Your task to perform on an android device: Add "bose soundlink" to the cart on newegg Image 0: 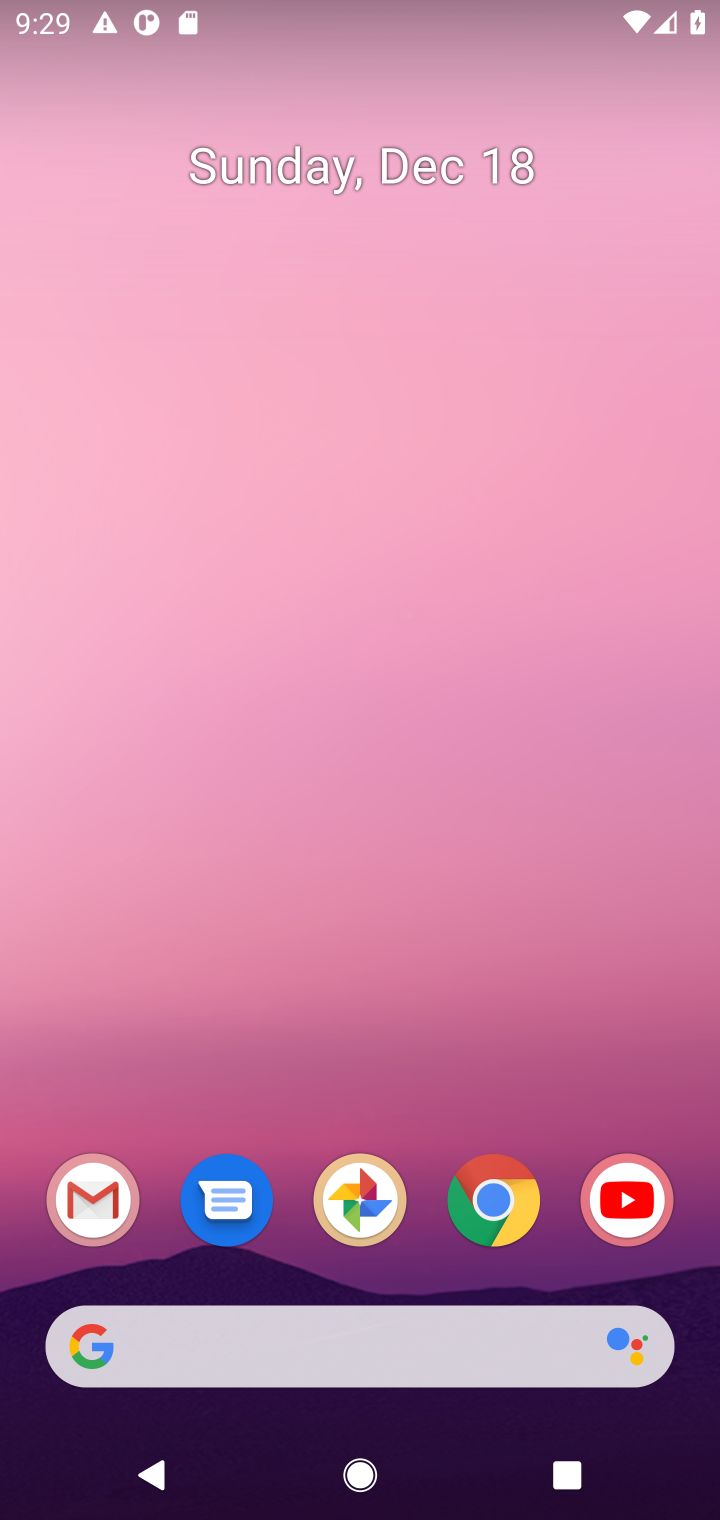
Step 0: click (493, 1216)
Your task to perform on an android device: Add "bose soundlink" to the cart on newegg Image 1: 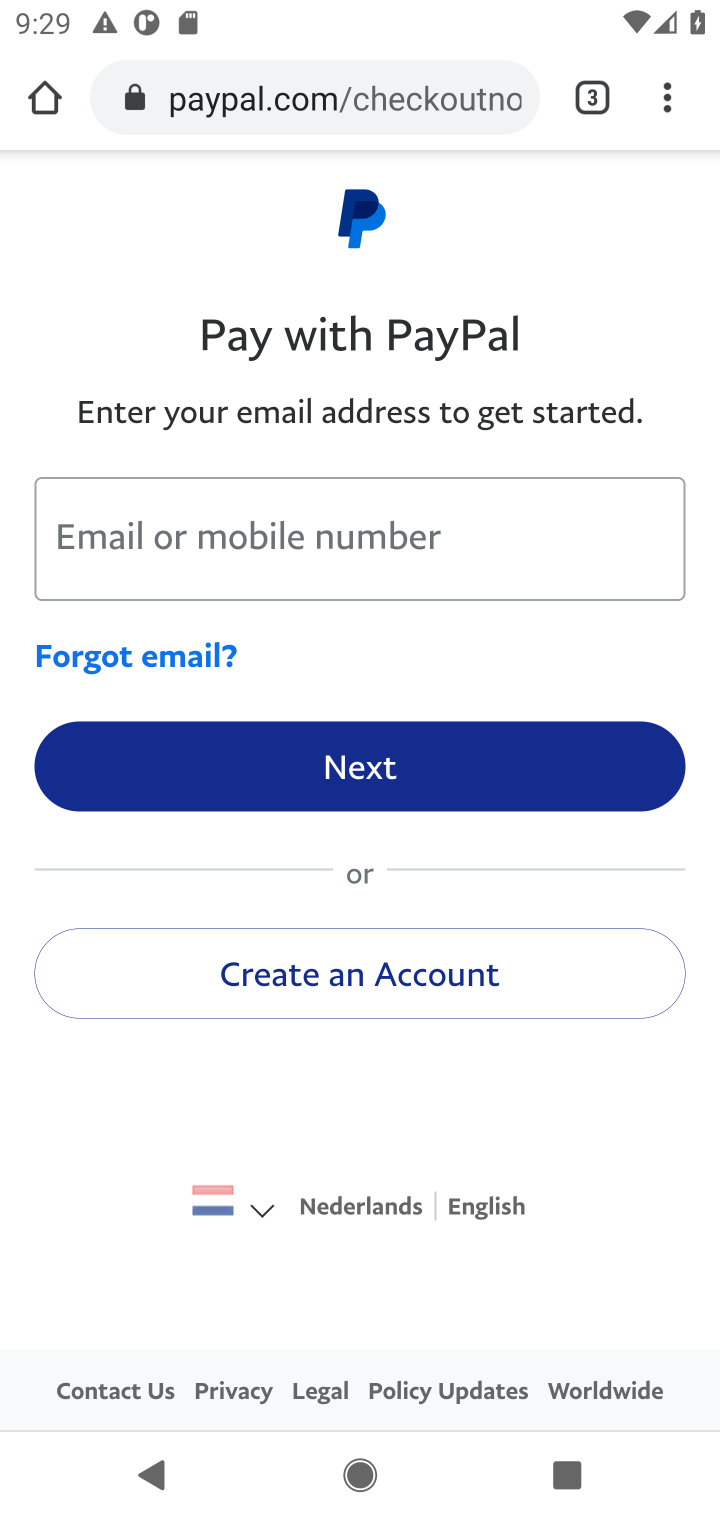
Step 1: click (286, 104)
Your task to perform on an android device: Add "bose soundlink" to the cart on newegg Image 2: 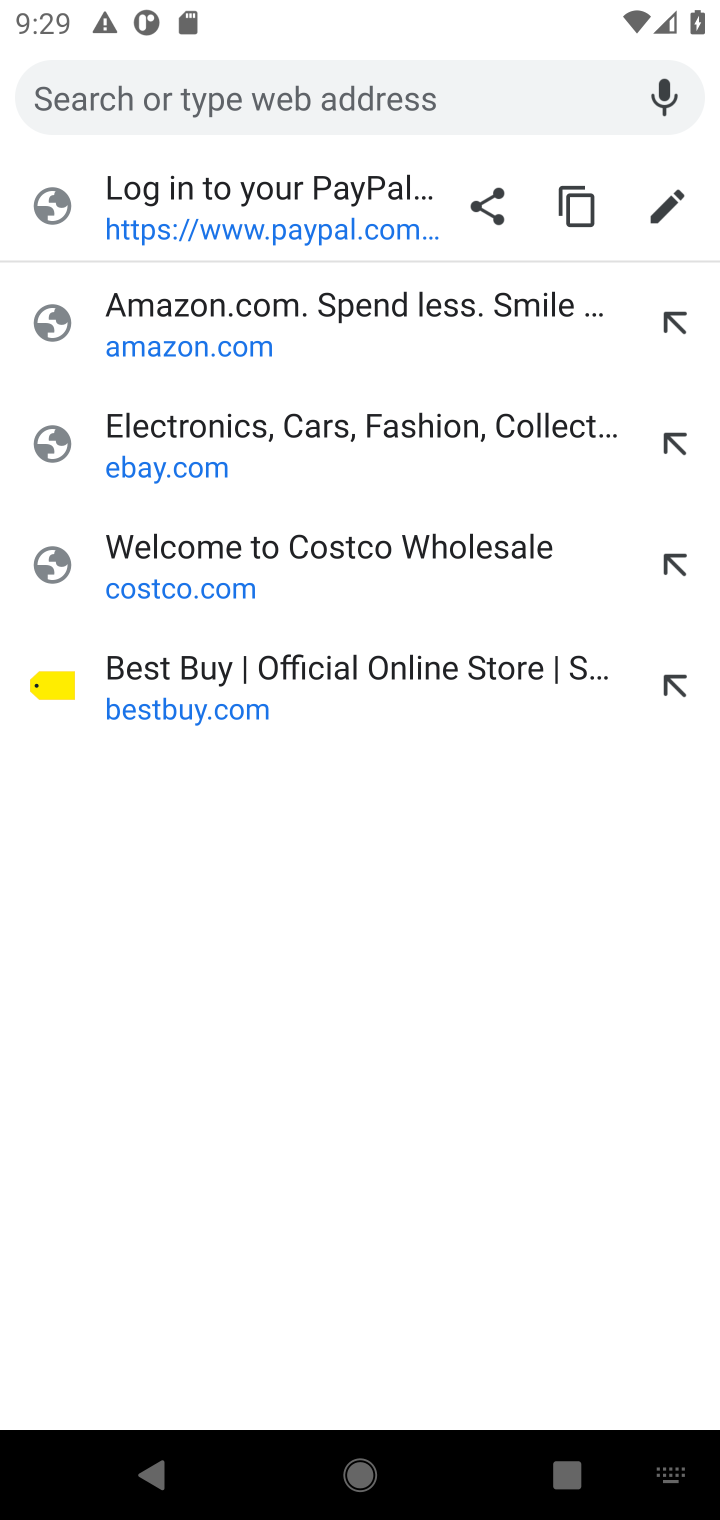
Step 2: type "newegg.com"
Your task to perform on an android device: Add "bose soundlink" to the cart on newegg Image 3: 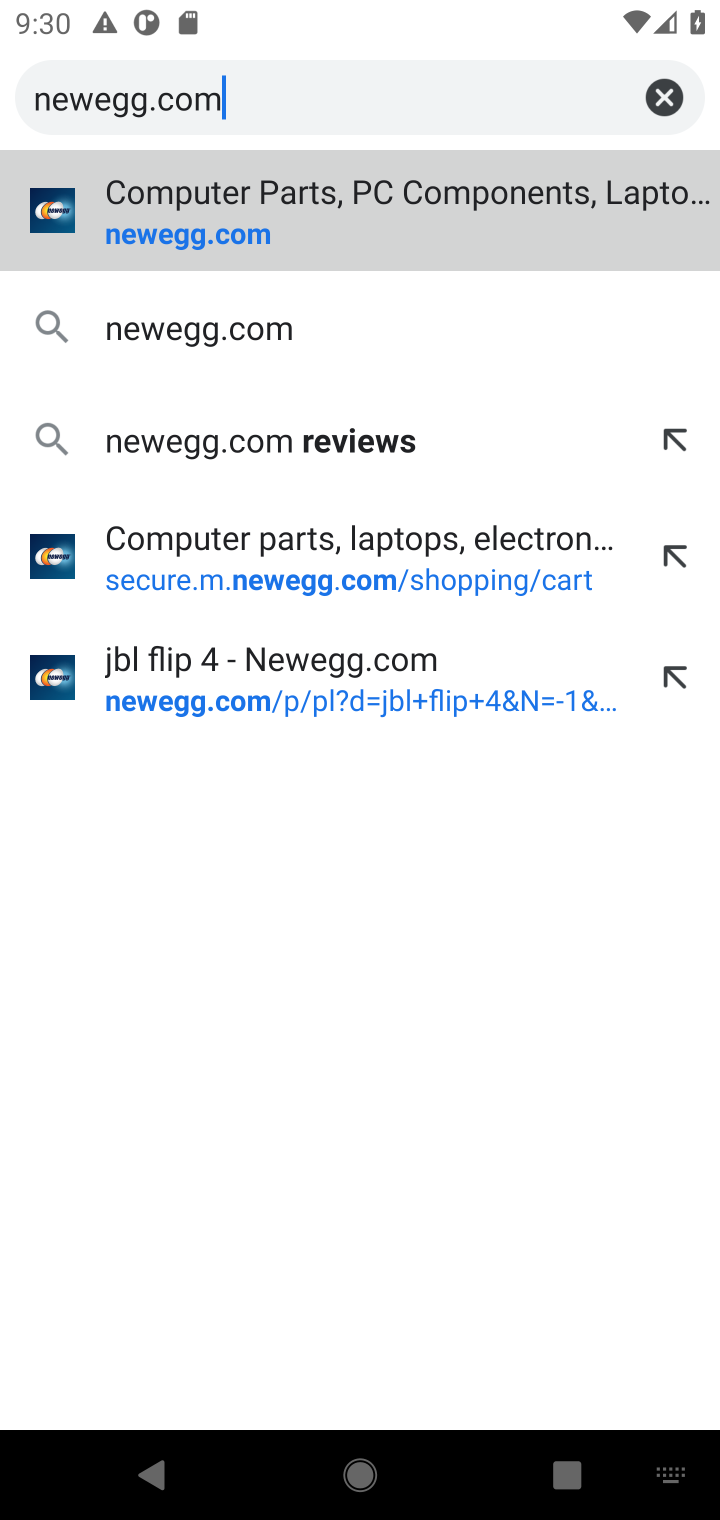
Step 3: click (189, 226)
Your task to perform on an android device: Add "bose soundlink" to the cart on newegg Image 4: 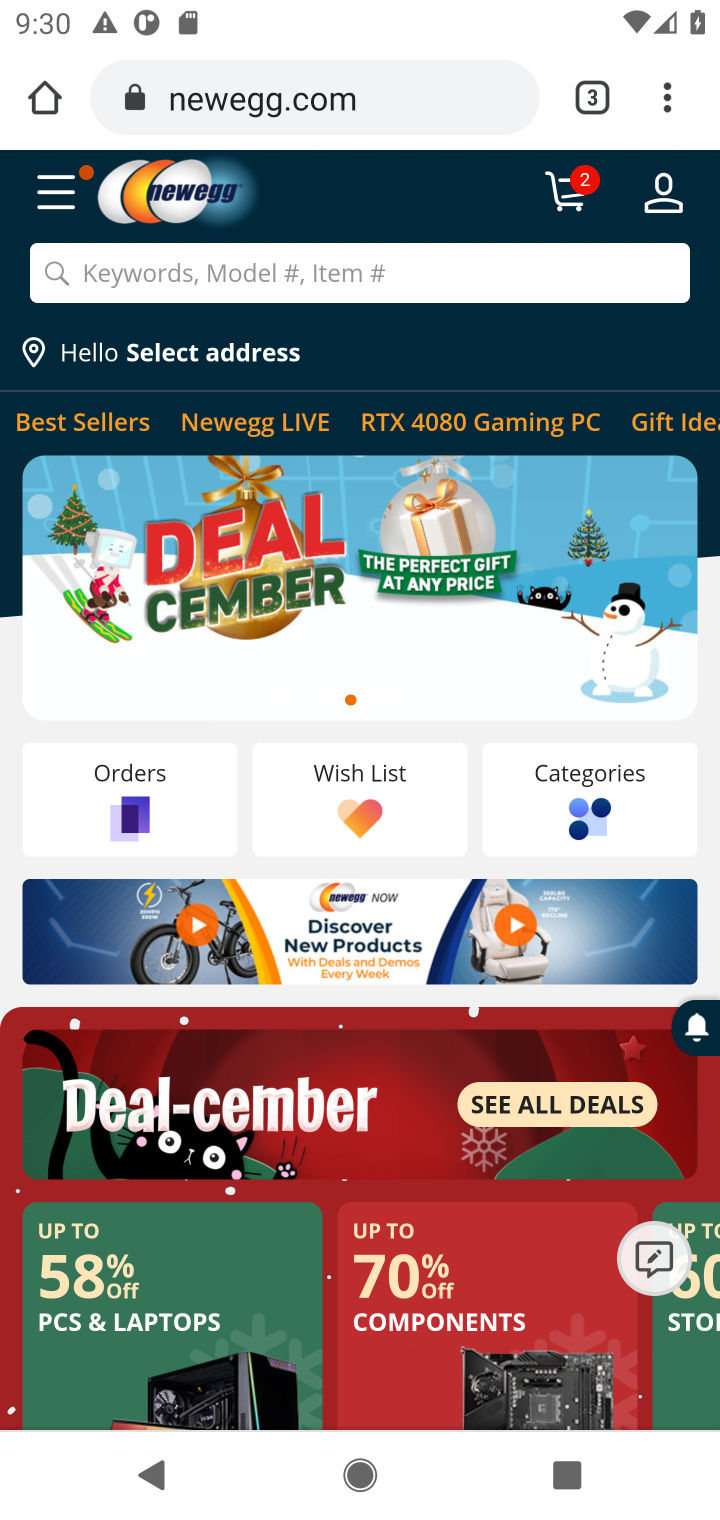
Step 4: click (141, 270)
Your task to perform on an android device: Add "bose soundlink" to the cart on newegg Image 5: 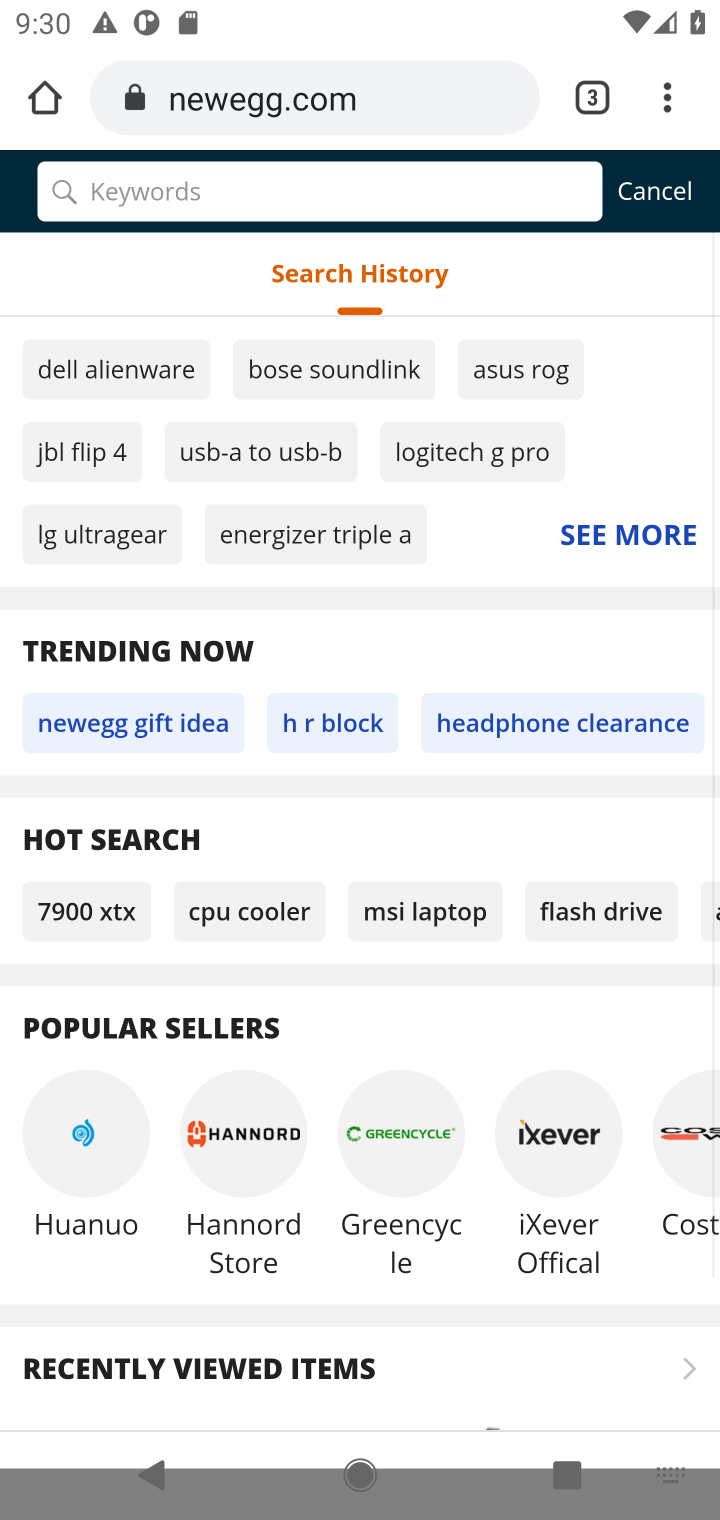
Step 5: click (140, 270)
Your task to perform on an android device: Add "bose soundlink" to the cart on newegg Image 6: 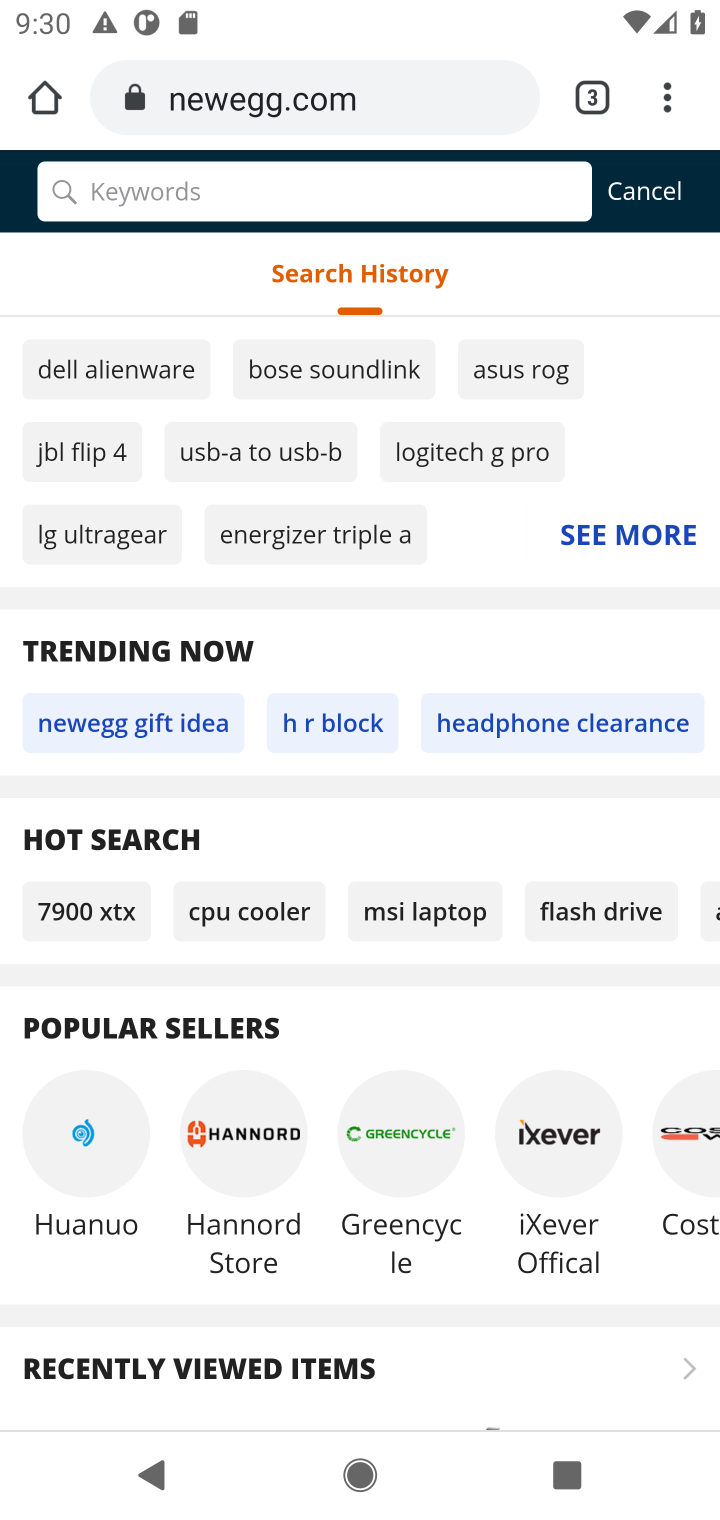
Step 6: click (233, 192)
Your task to perform on an android device: Add "bose soundlink" to the cart on newegg Image 7: 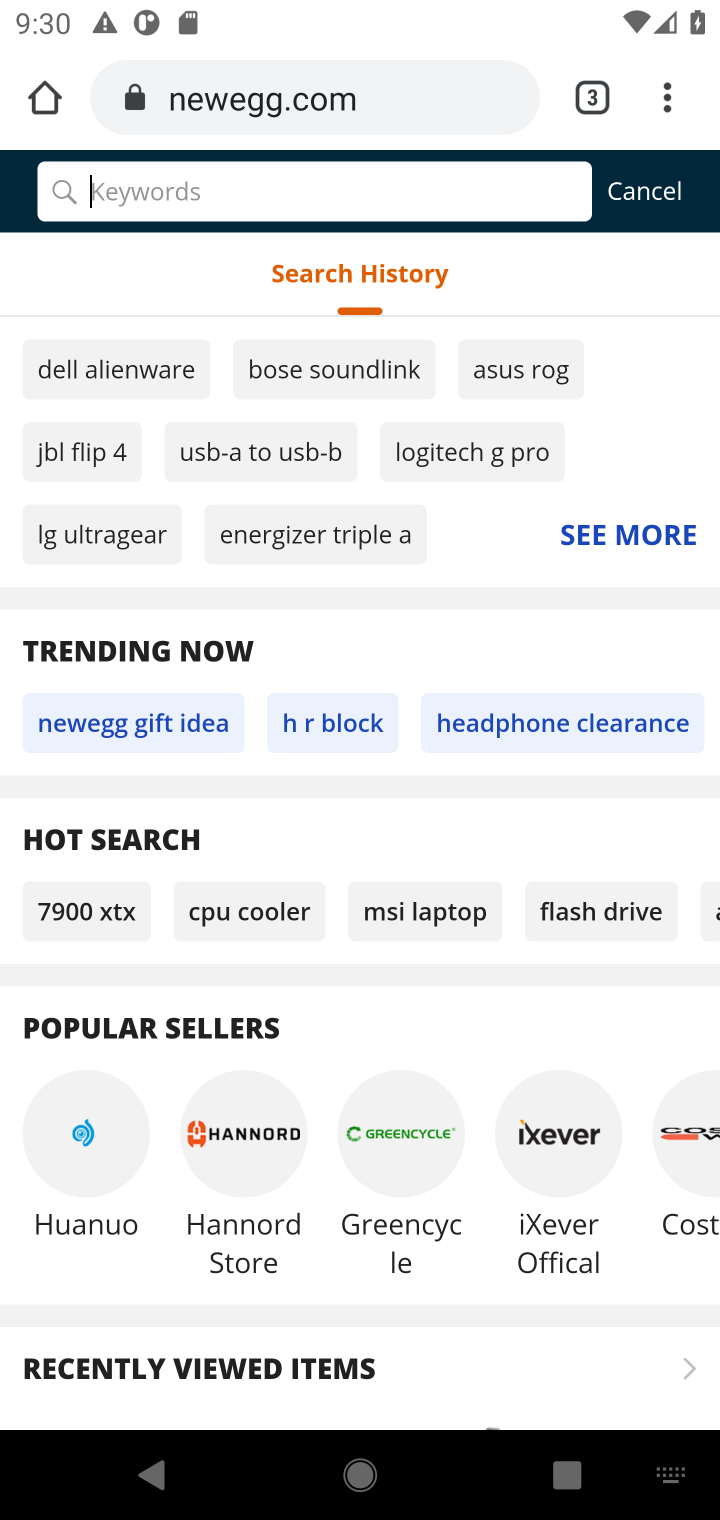
Step 7: type "bose soundlink"
Your task to perform on an android device: Add "bose soundlink" to the cart on newegg Image 8: 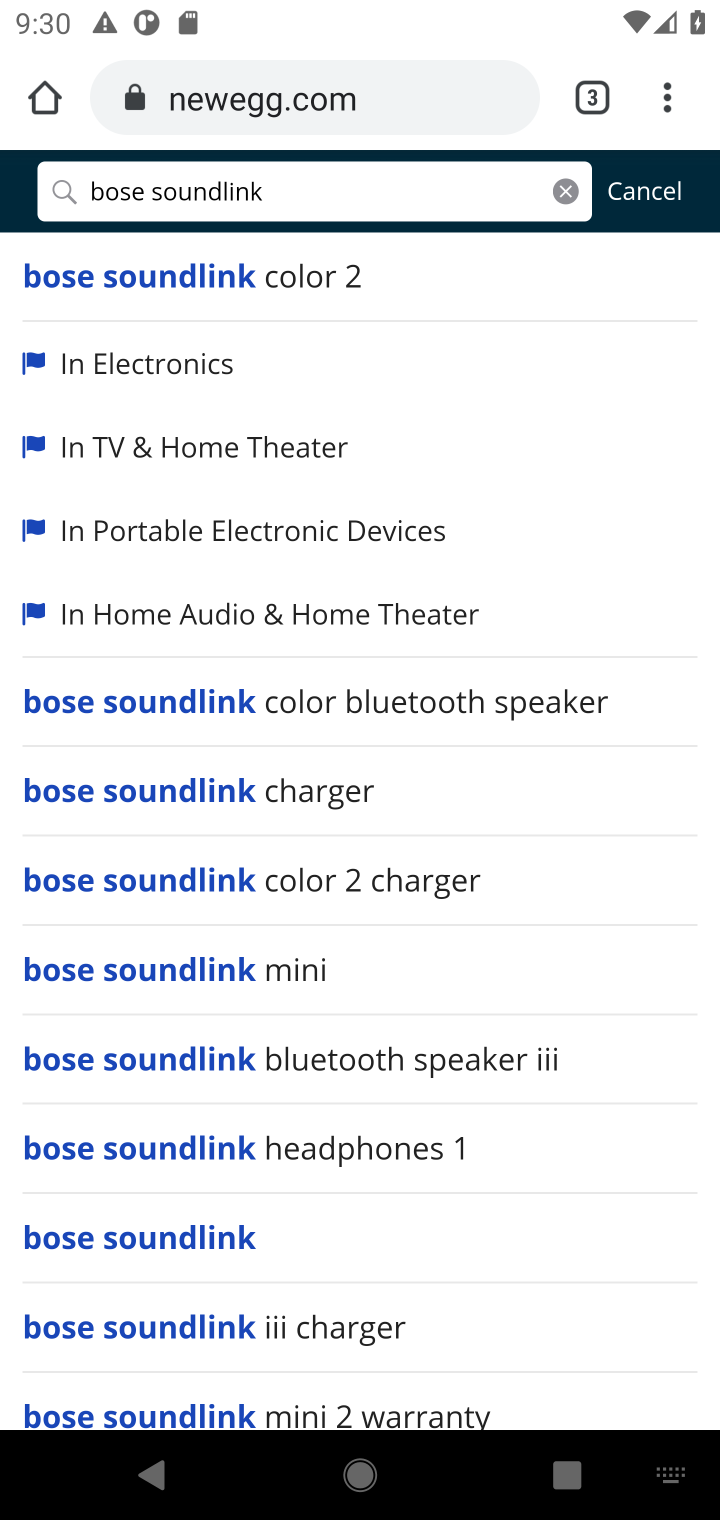
Step 8: click (134, 1244)
Your task to perform on an android device: Add "bose soundlink" to the cart on newegg Image 9: 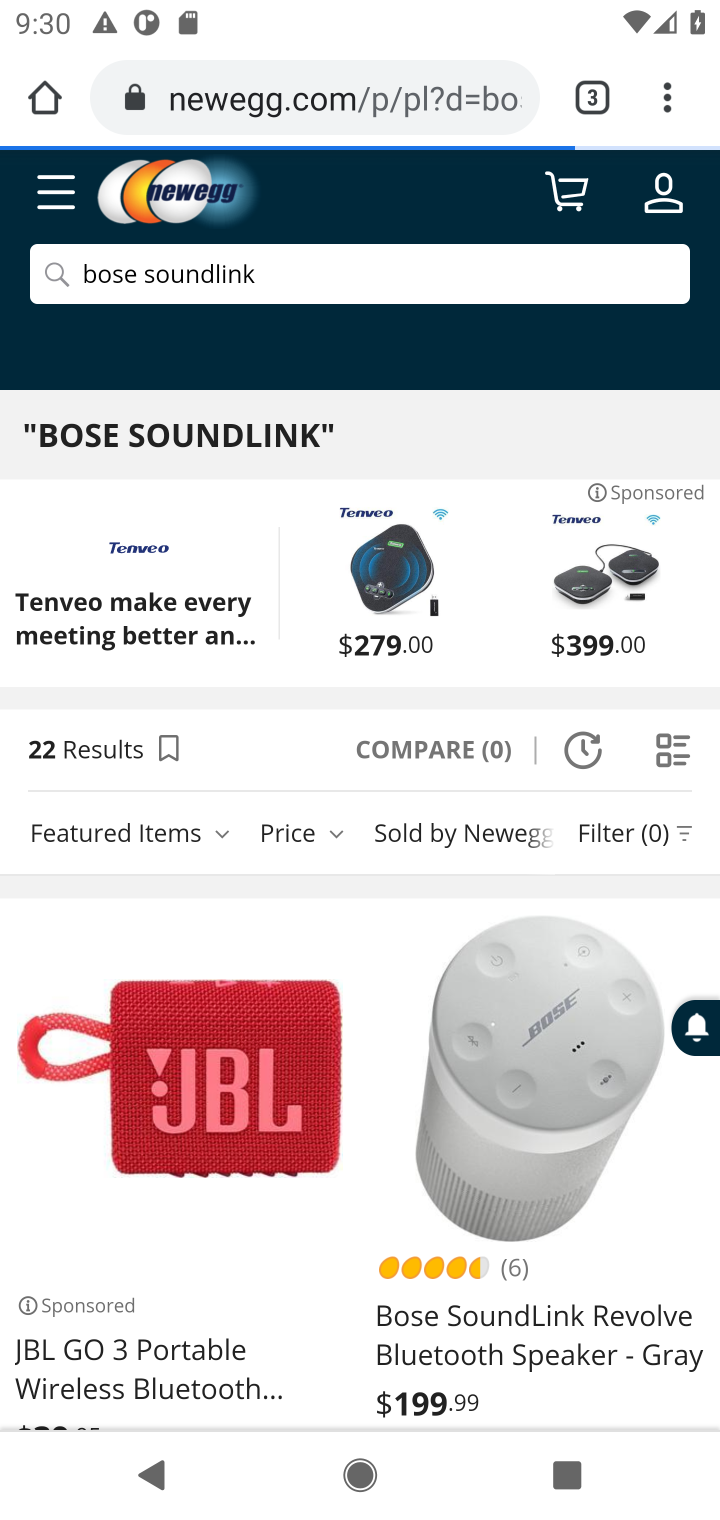
Step 9: drag from (134, 1242) to (99, 664)
Your task to perform on an android device: Add "bose soundlink" to the cart on newegg Image 10: 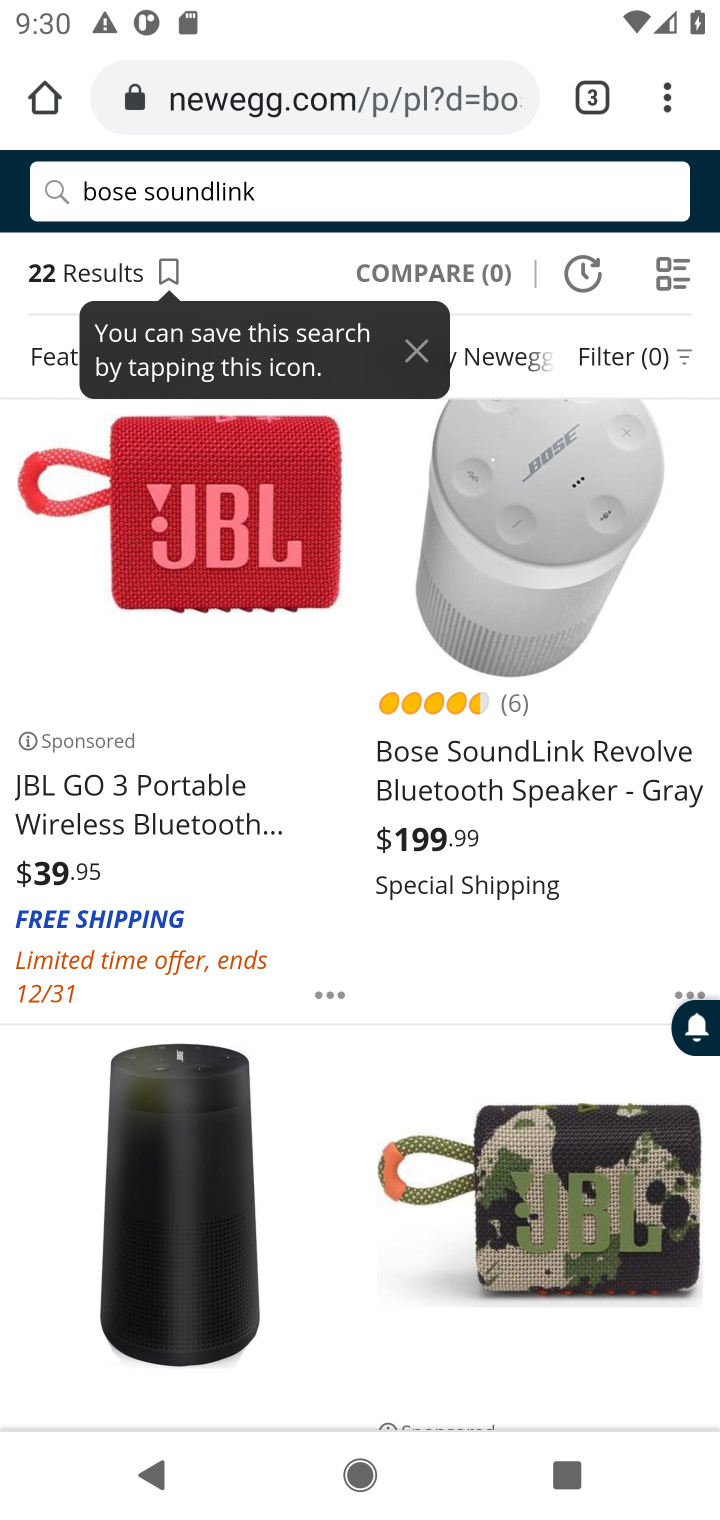
Step 10: click (552, 770)
Your task to perform on an android device: Add "bose soundlink" to the cart on newegg Image 11: 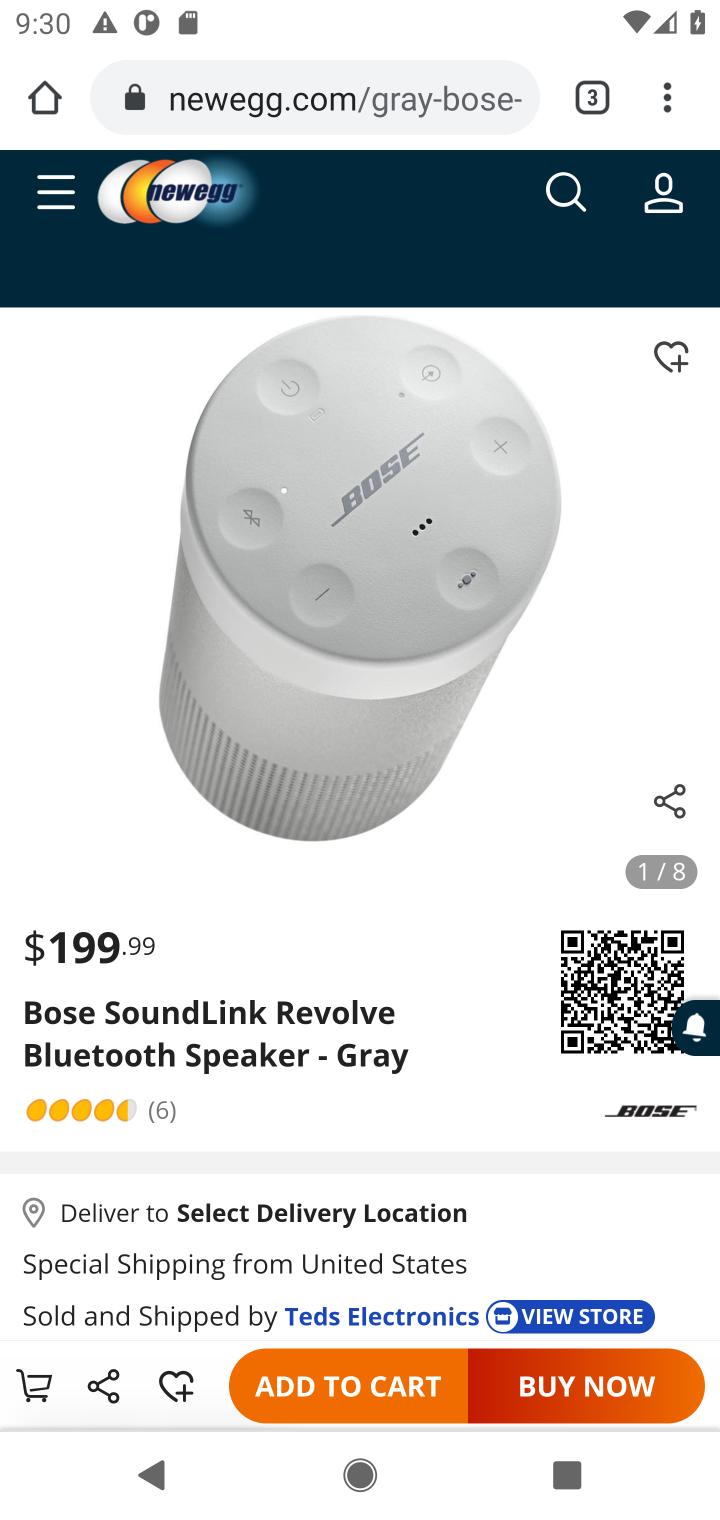
Step 11: click (358, 1374)
Your task to perform on an android device: Add "bose soundlink" to the cart on newegg Image 12: 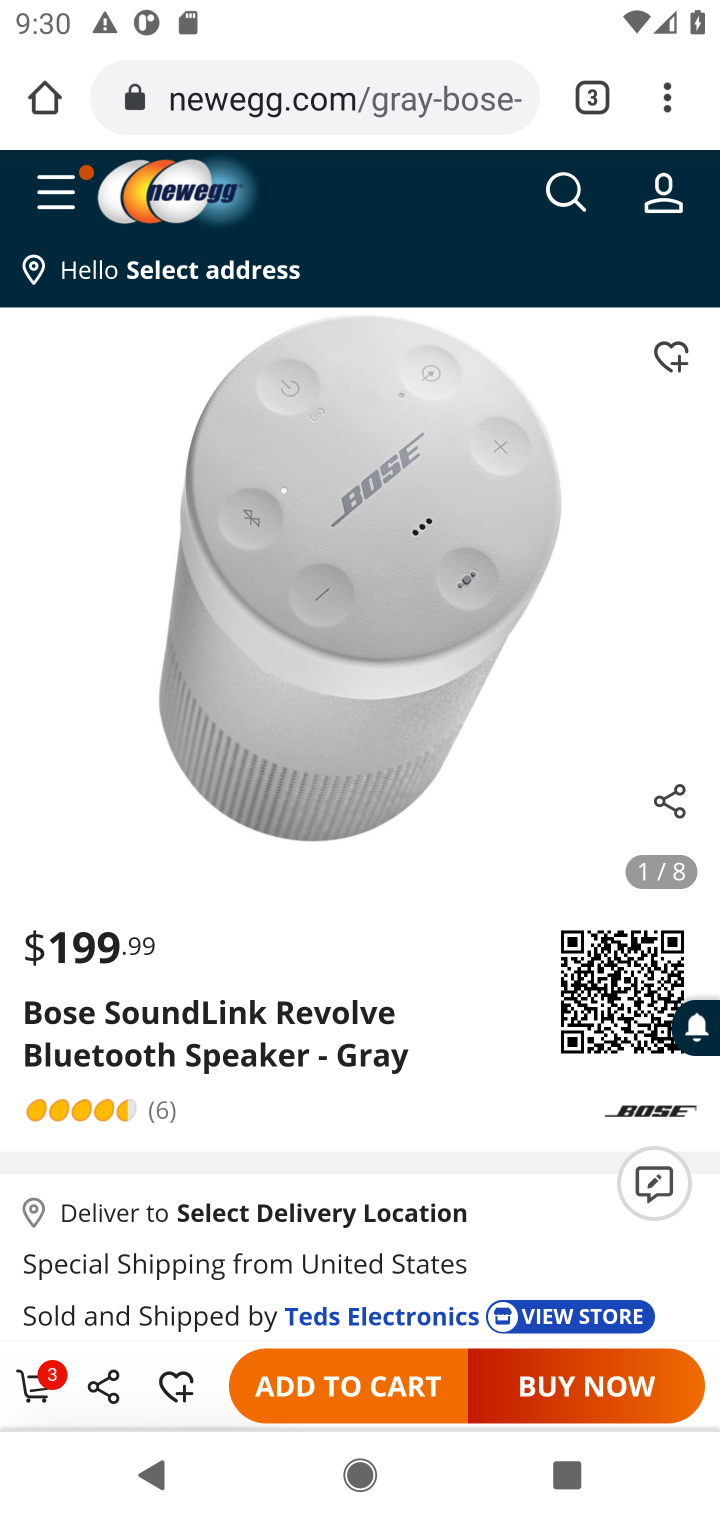
Step 12: task complete